Your task to perform on an android device: find snoozed emails in the gmail app Image 0: 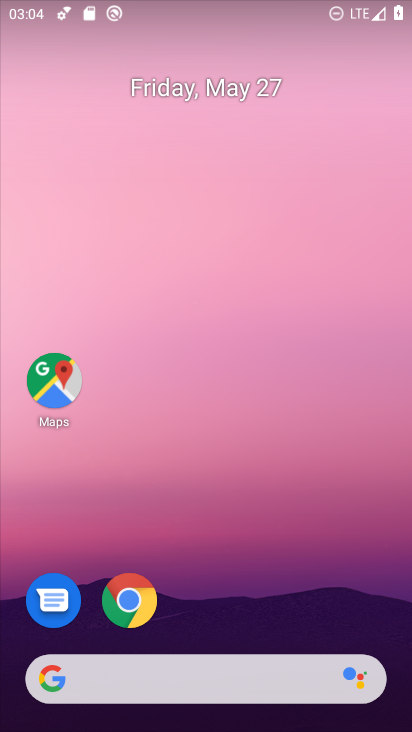
Step 0: drag from (192, 726) to (193, 35)
Your task to perform on an android device: find snoozed emails in the gmail app Image 1: 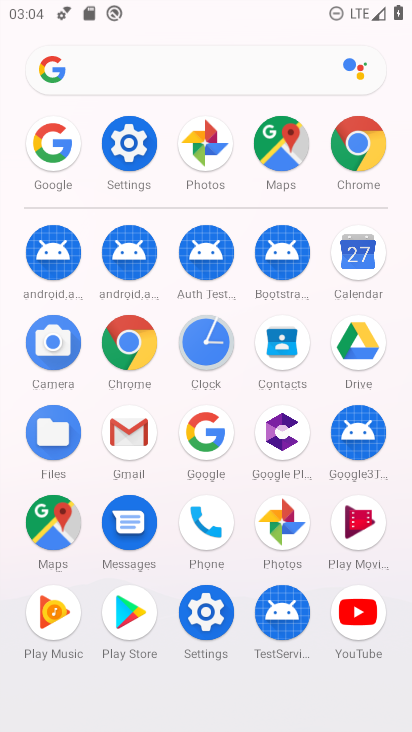
Step 1: click (125, 419)
Your task to perform on an android device: find snoozed emails in the gmail app Image 2: 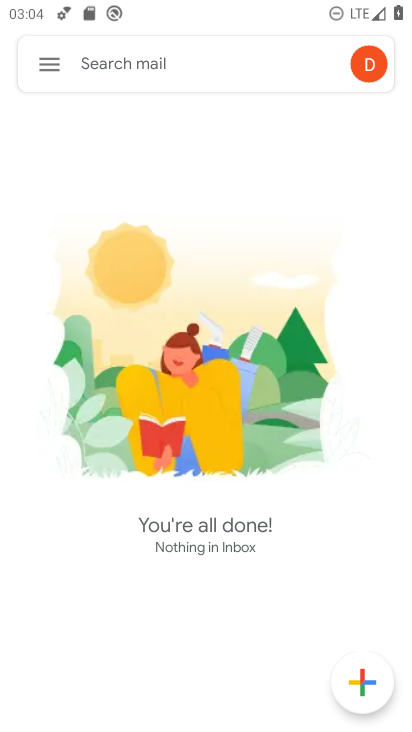
Step 2: click (42, 67)
Your task to perform on an android device: find snoozed emails in the gmail app Image 3: 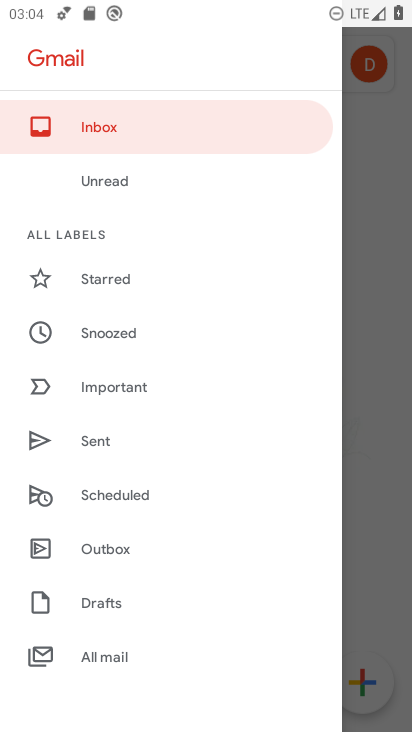
Step 3: drag from (106, 634) to (106, 506)
Your task to perform on an android device: find snoozed emails in the gmail app Image 4: 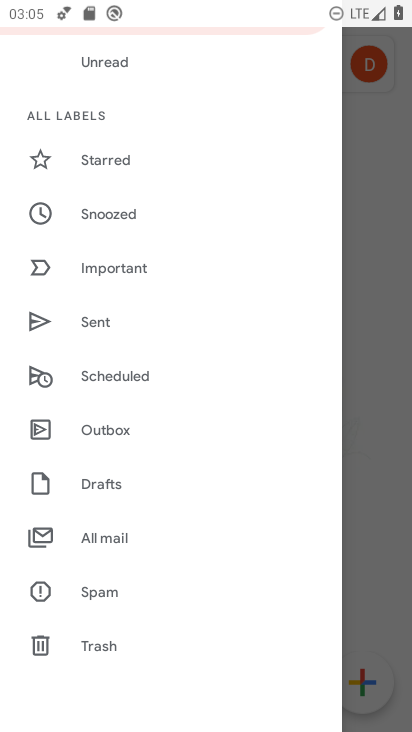
Step 4: click (127, 207)
Your task to perform on an android device: find snoozed emails in the gmail app Image 5: 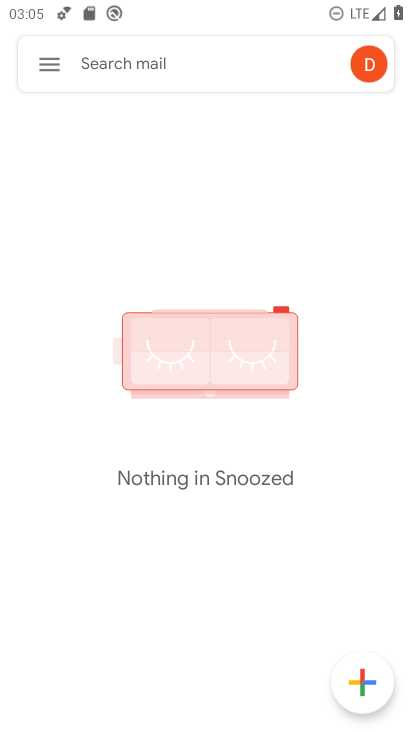
Step 5: task complete